Your task to perform on an android device: When is my next meeting? Image 0: 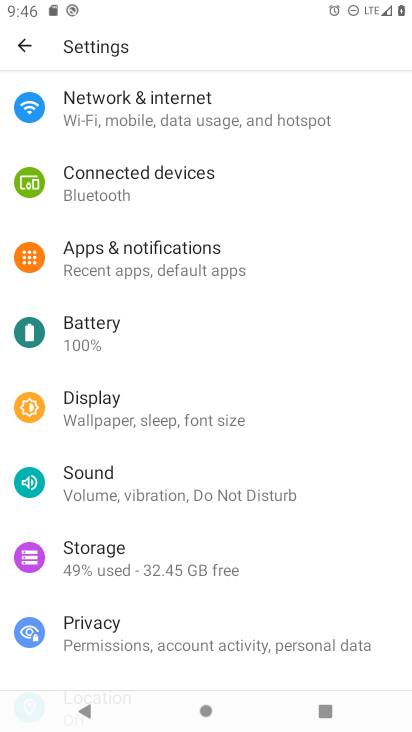
Step 0: press home button
Your task to perform on an android device: When is my next meeting? Image 1: 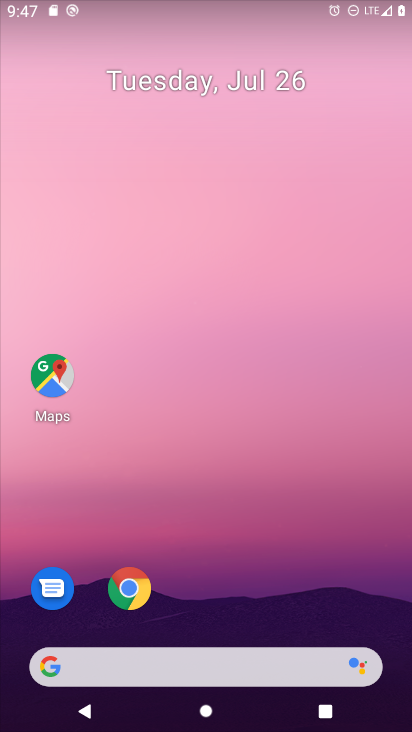
Step 1: drag from (239, 607) to (247, 174)
Your task to perform on an android device: When is my next meeting? Image 2: 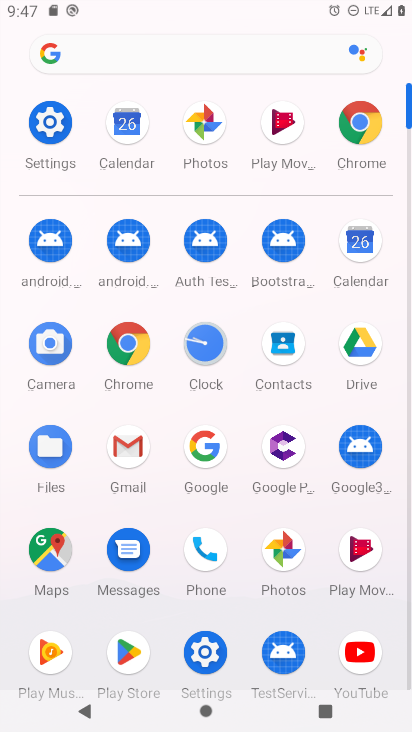
Step 2: click (383, 255)
Your task to perform on an android device: When is my next meeting? Image 3: 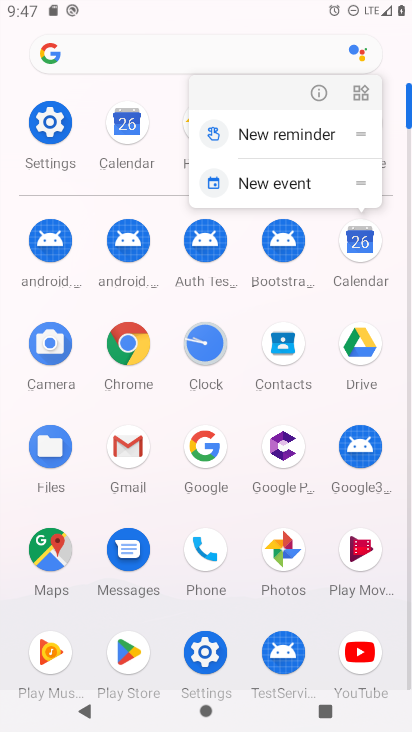
Step 3: click (369, 249)
Your task to perform on an android device: When is my next meeting? Image 4: 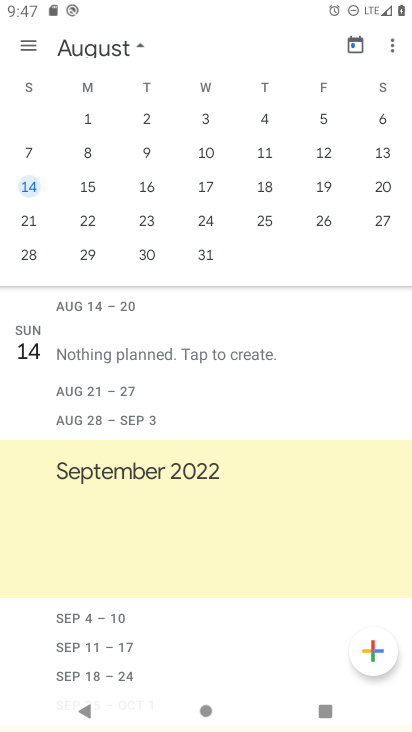
Step 4: drag from (118, 218) to (389, 202)
Your task to perform on an android device: When is my next meeting? Image 5: 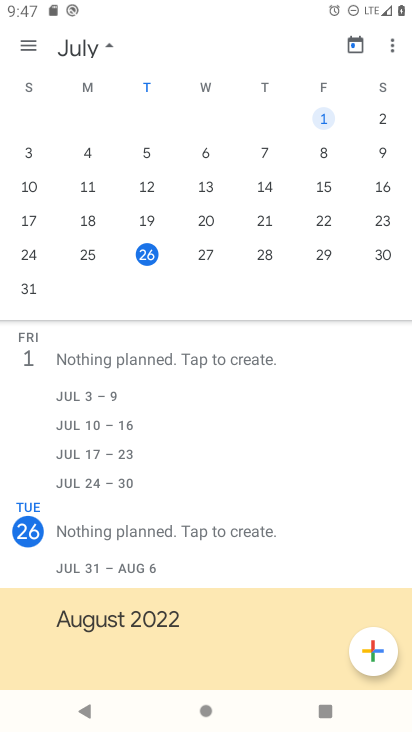
Step 5: click (148, 257)
Your task to perform on an android device: When is my next meeting? Image 6: 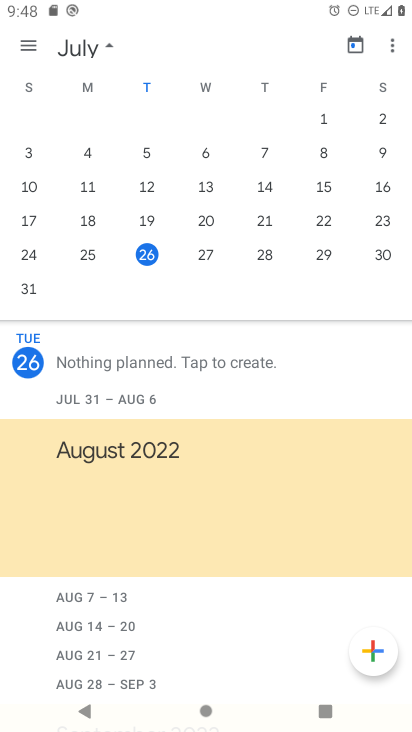
Step 6: task complete